Your task to perform on an android device: open chrome and create a bookmark for the current page Image 0: 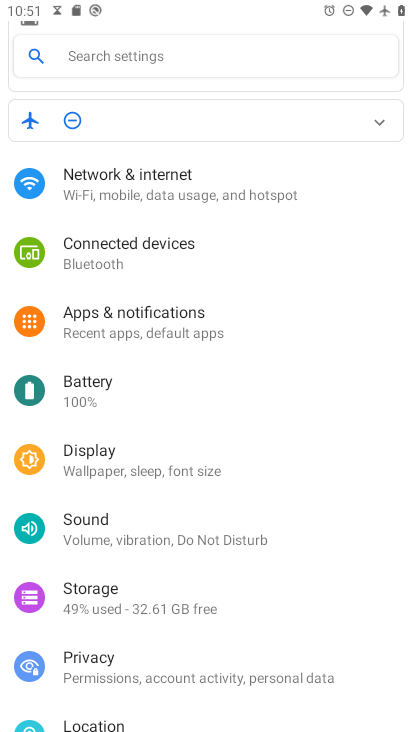
Step 0: press home button
Your task to perform on an android device: open chrome and create a bookmark for the current page Image 1: 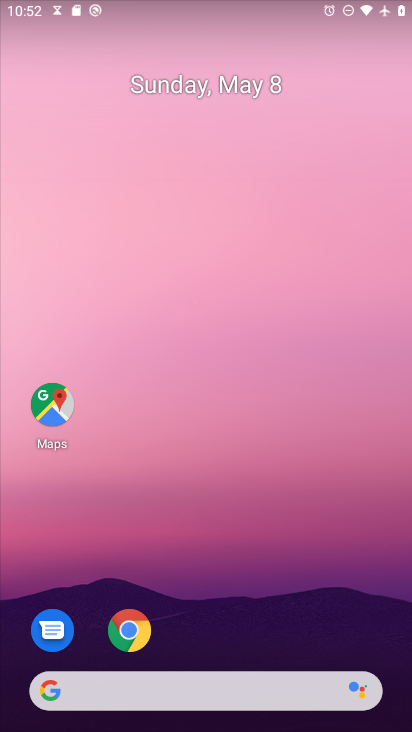
Step 1: click (138, 630)
Your task to perform on an android device: open chrome and create a bookmark for the current page Image 2: 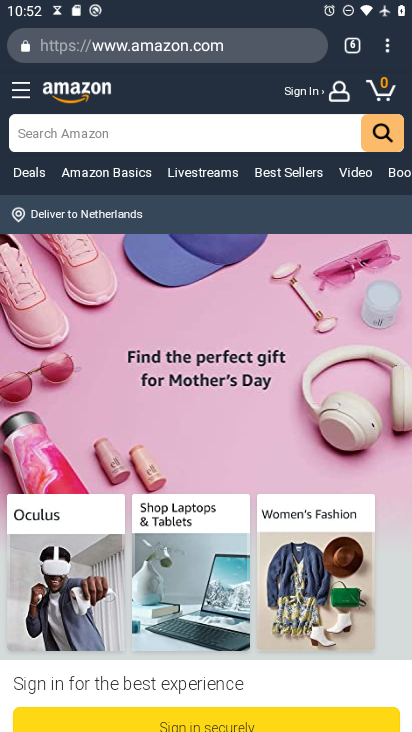
Step 2: click (386, 58)
Your task to perform on an android device: open chrome and create a bookmark for the current page Image 3: 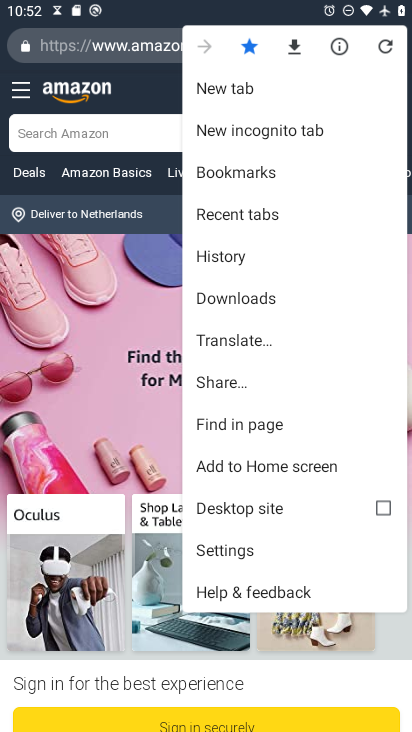
Step 3: task complete